Your task to perform on an android device: Play the last video I watched on Youtube Image 0: 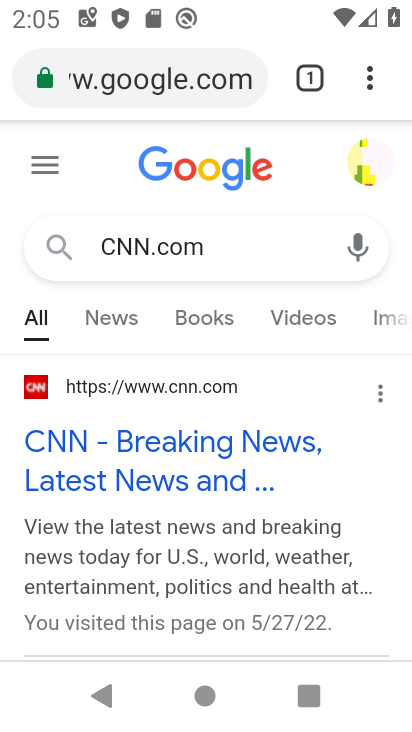
Step 0: press home button
Your task to perform on an android device: Play the last video I watched on Youtube Image 1: 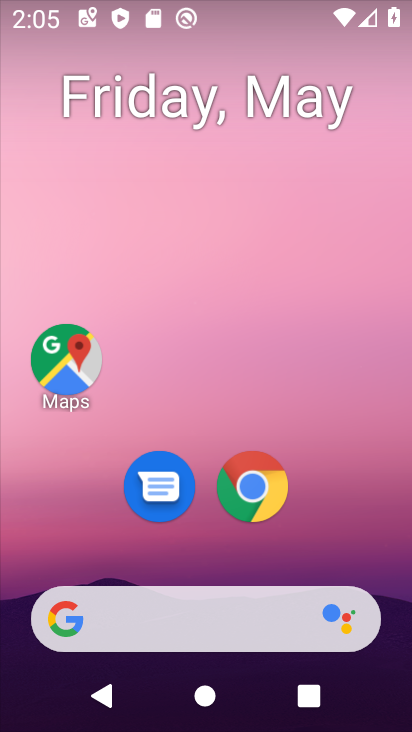
Step 1: drag from (369, 561) to (353, 206)
Your task to perform on an android device: Play the last video I watched on Youtube Image 2: 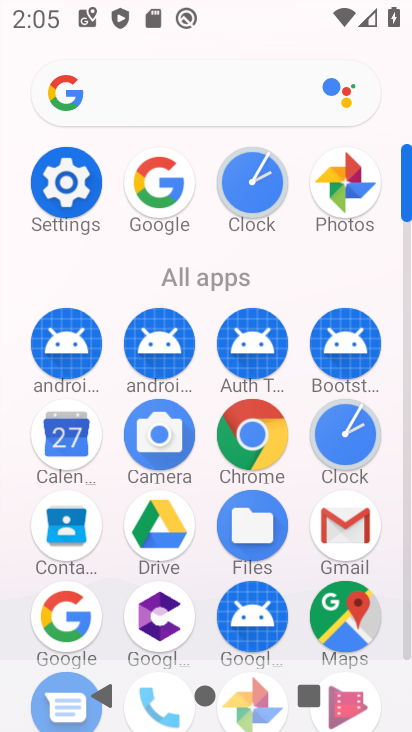
Step 2: drag from (296, 638) to (262, 215)
Your task to perform on an android device: Play the last video I watched on Youtube Image 3: 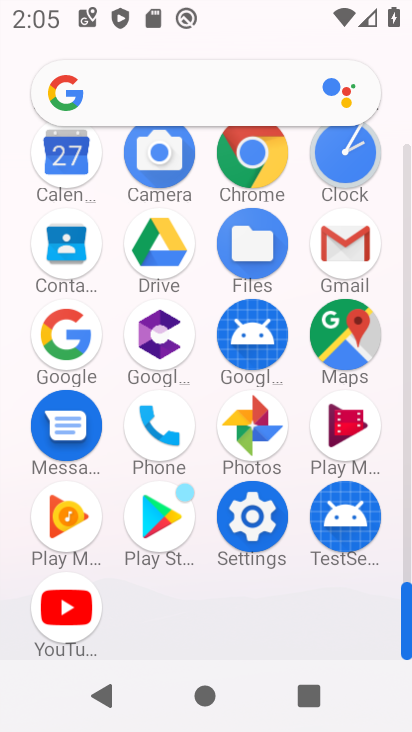
Step 3: click (81, 607)
Your task to perform on an android device: Play the last video I watched on Youtube Image 4: 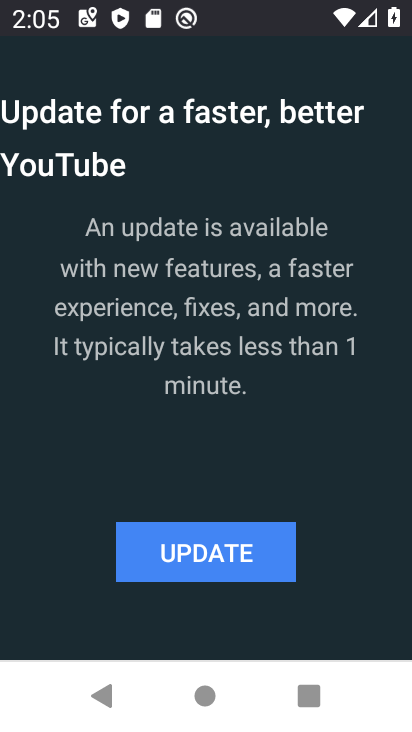
Step 4: click (206, 556)
Your task to perform on an android device: Play the last video I watched on Youtube Image 5: 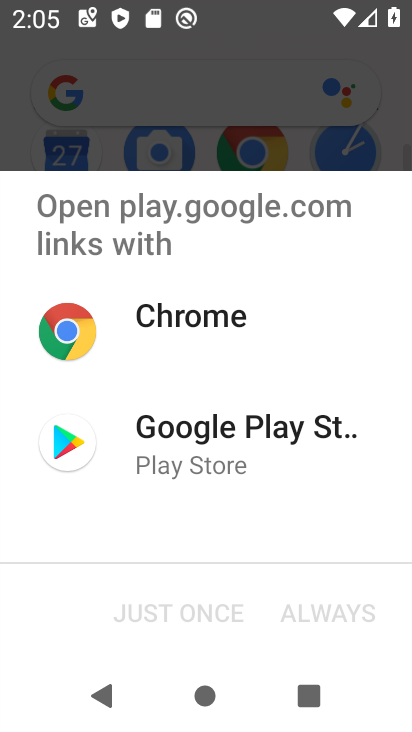
Step 5: drag from (166, 449) to (231, 448)
Your task to perform on an android device: Play the last video I watched on Youtube Image 6: 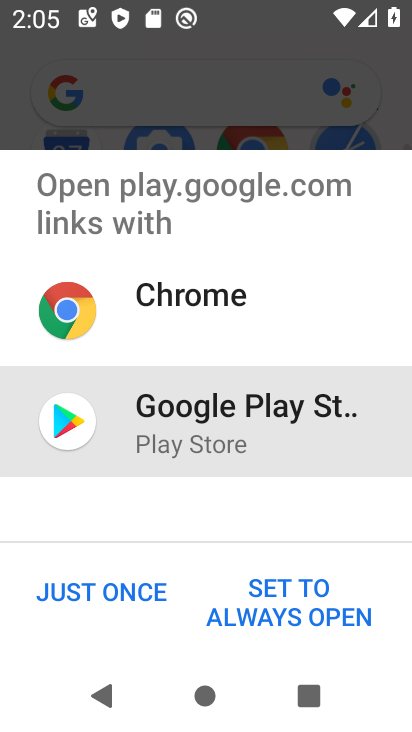
Step 6: click (69, 591)
Your task to perform on an android device: Play the last video I watched on Youtube Image 7: 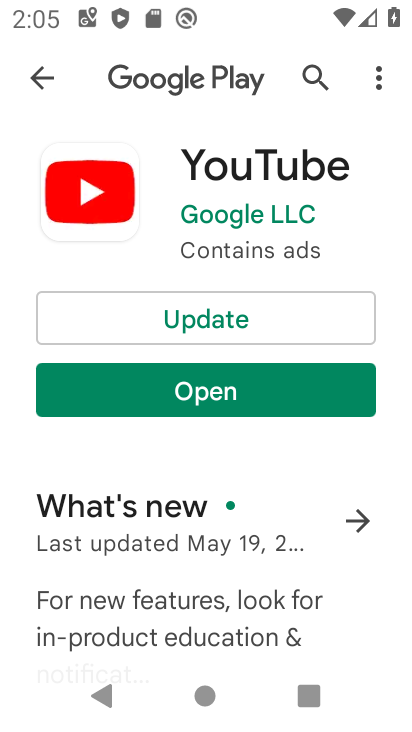
Step 7: click (229, 316)
Your task to perform on an android device: Play the last video I watched on Youtube Image 8: 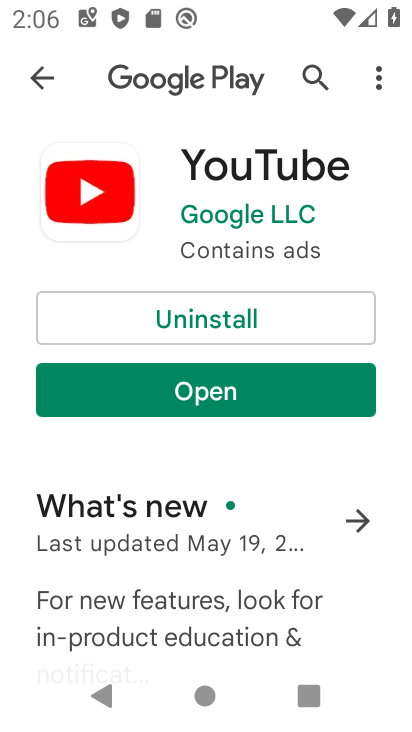
Step 8: click (253, 391)
Your task to perform on an android device: Play the last video I watched on Youtube Image 9: 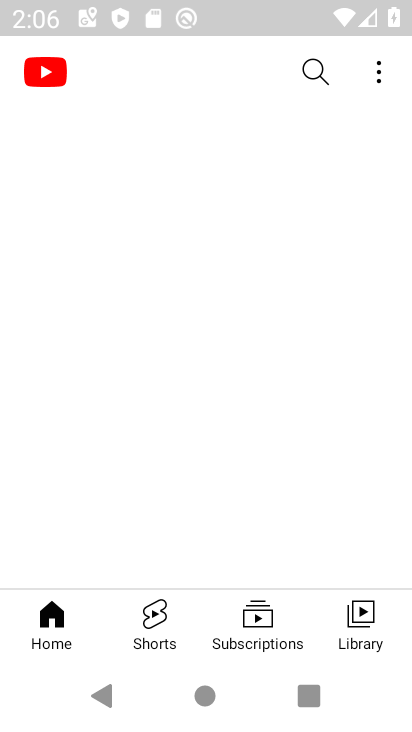
Step 9: click (361, 629)
Your task to perform on an android device: Play the last video I watched on Youtube Image 10: 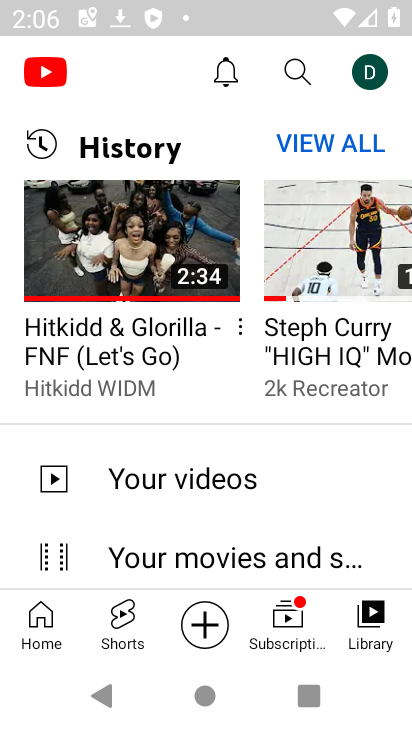
Step 10: click (129, 256)
Your task to perform on an android device: Play the last video I watched on Youtube Image 11: 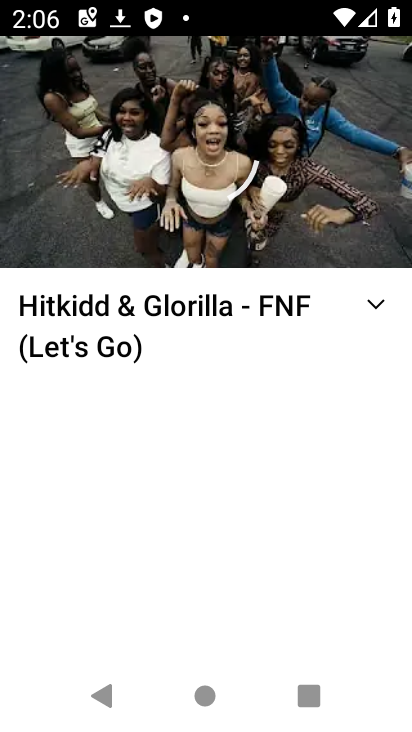
Step 11: task complete